Your task to perform on an android device: When is my next meeting? Image 0: 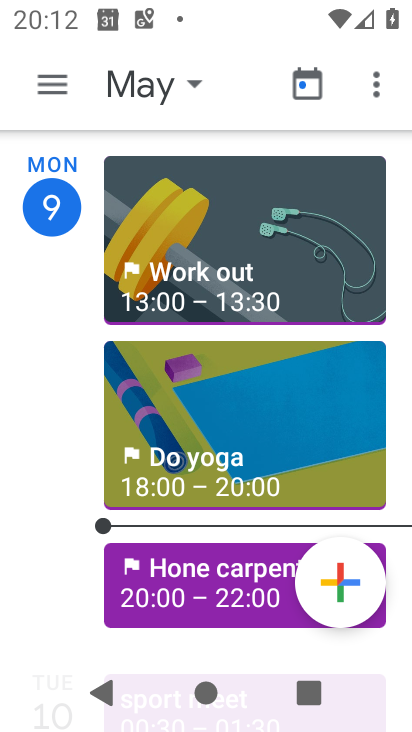
Step 0: drag from (58, 464) to (117, 128)
Your task to perform on an android device: When is my next meeting? Image 1: 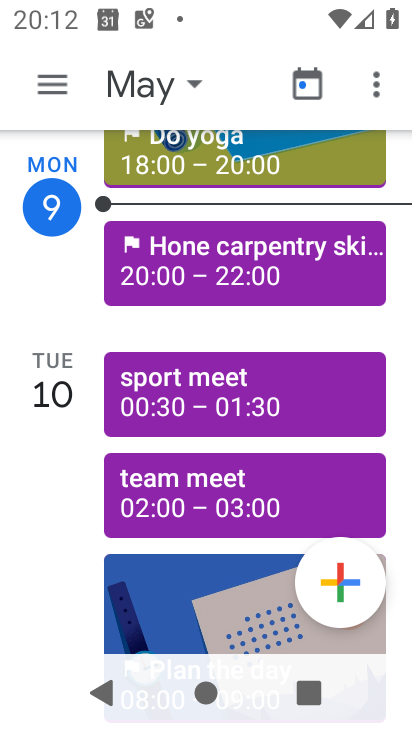
Step 1: task complete